Your task to perform on an android device: stop showing notifications on the lock screen Image 0: 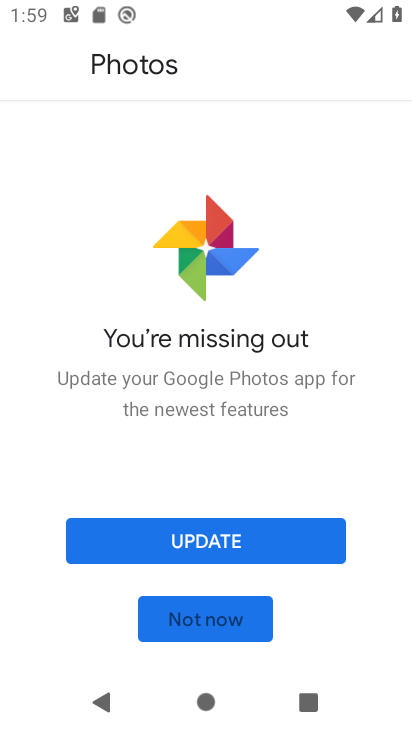
Step 0: press home button
Your task to perform on an android device: stop showing notifications on the lock screen Image 1: 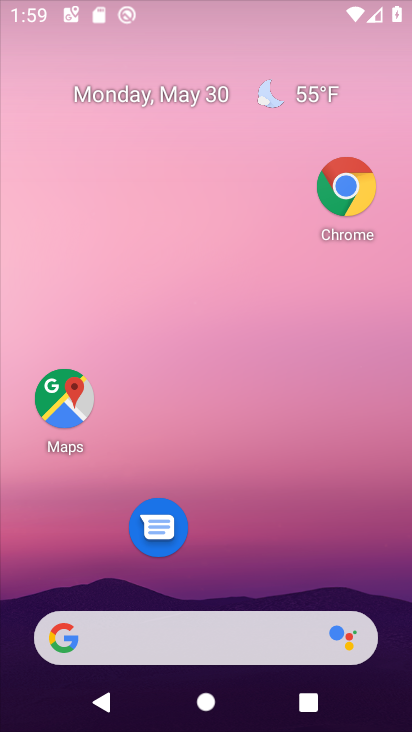
Step 1: drag from (230, 563) to (249, 188)
Your task to perform on an android device: stop showing notifications on the lock screen Image 2: 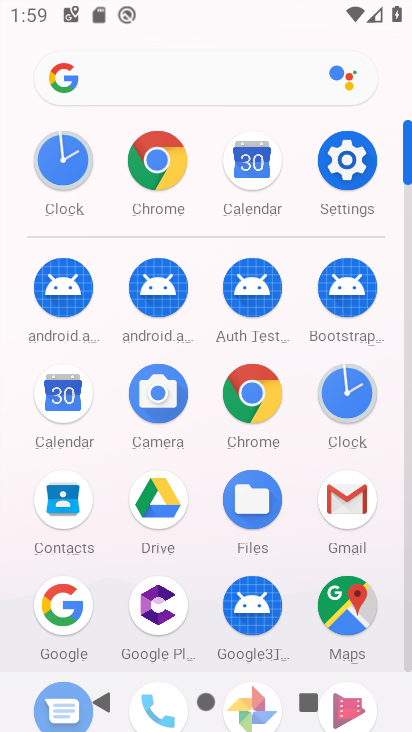
Step 2: click (344, 168)
Your task to perform on an android device: stop showing notifications on the lock screen Image 3: 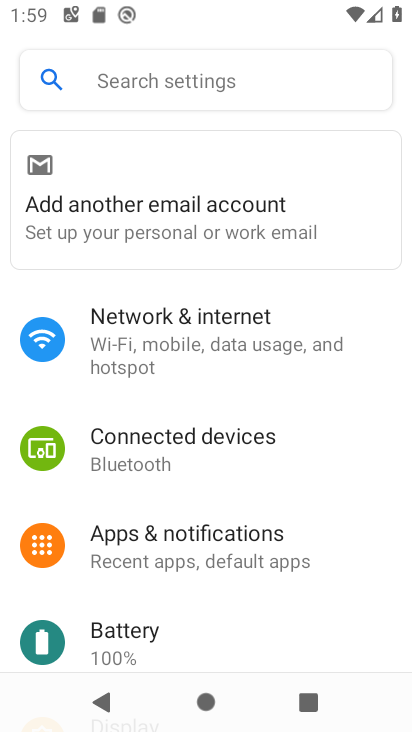
Step 3: click (184, 540)
Your task to perform on an android device: stop showing notifications on the lock screen Image 4: 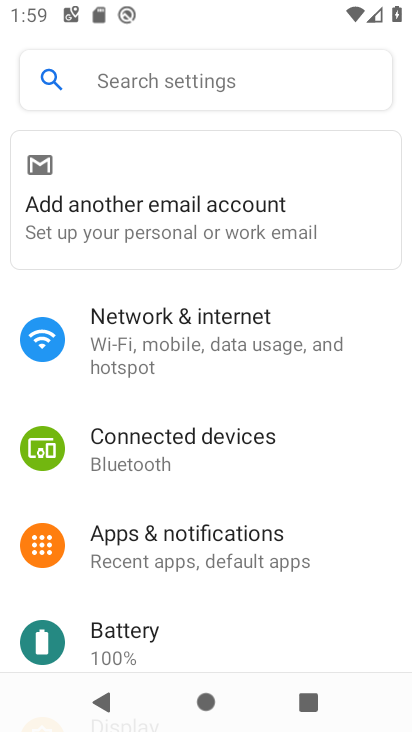
Step 4: click (184, 540)
Your task to perform on an android device: stop showing notifications on the lock screen Image 5: 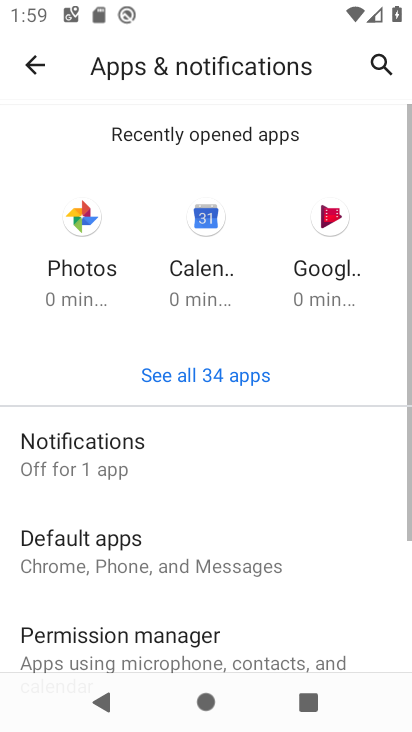
Step 5: click (192, 456)
Your task to perform on an android device: stop showing notifications on the lock screen Image 6: 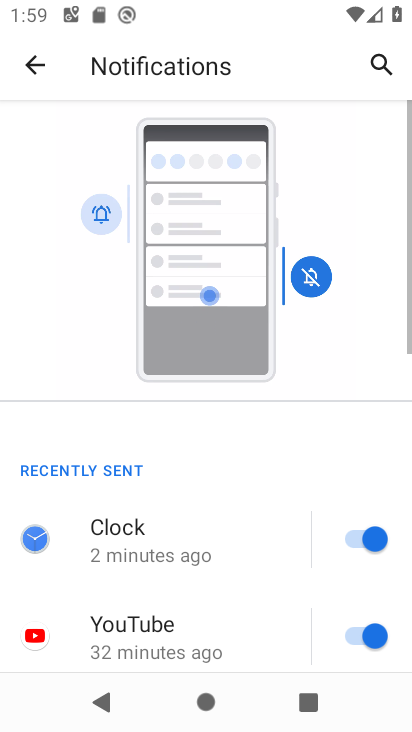
Step 6: drag from (226, 603) to (244, 235)
Your task to perform on an android device: stop showing notifications on the lock screen Image 7: 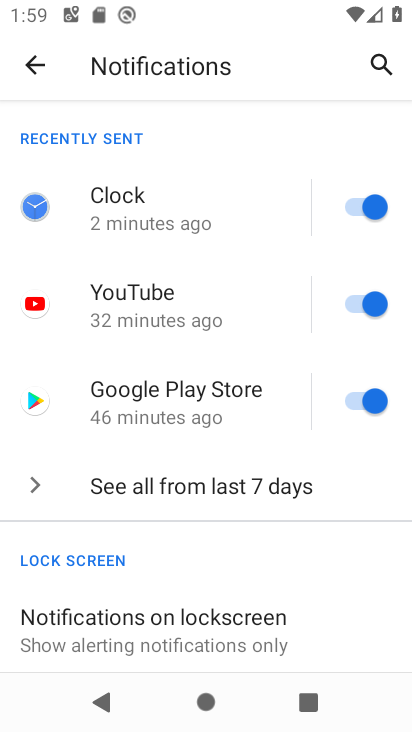
Step 7: click (189, 622)
Your task to perform on an android device: stop showing notifications on the lock screen Image 8: 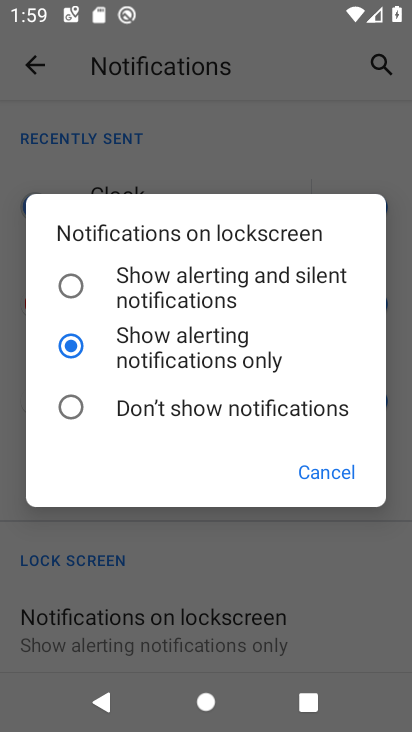
Step 8: drag from (187, 617) to (242, 331)
Your task to perform on an android device: stop showing notifications on the lock screen Image 9: 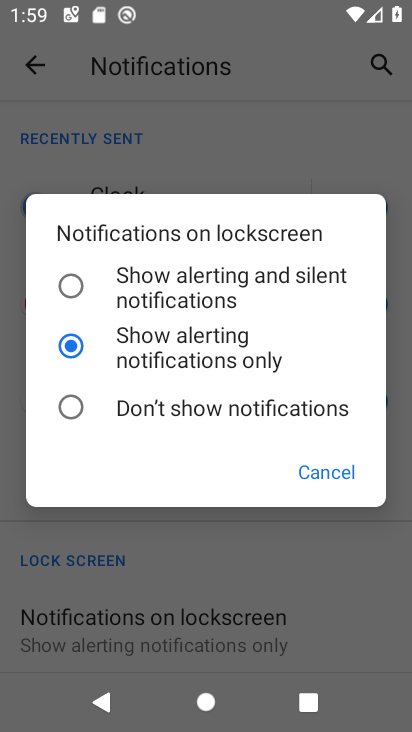
Step 9: click (140, 417)
Your task to perform on an android device: stop showing notifications on the lock screen Image 10: 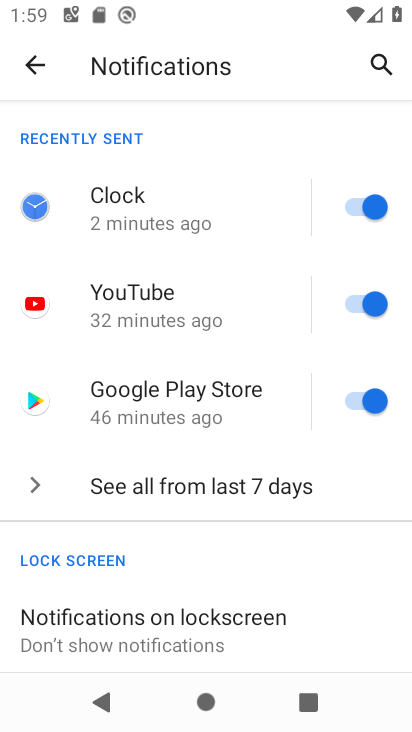
Step 10: task complete